Your task to perform on an android device: change the clock display to analog Image 0: 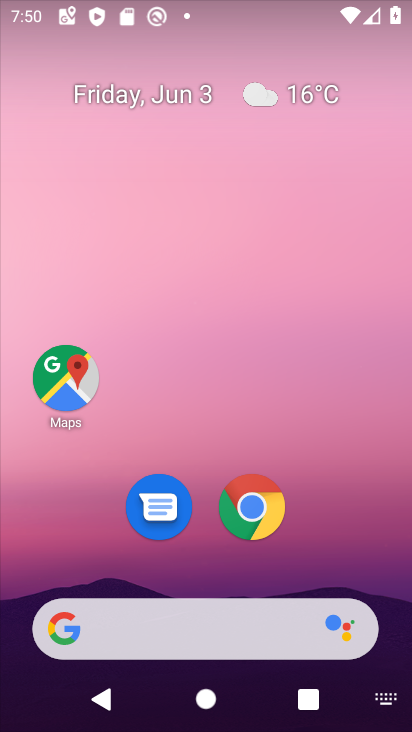
Step 0: drag from (309, 471) to (177, 4)
Your task to perform on an android device: change the clock display to analog Image 1: 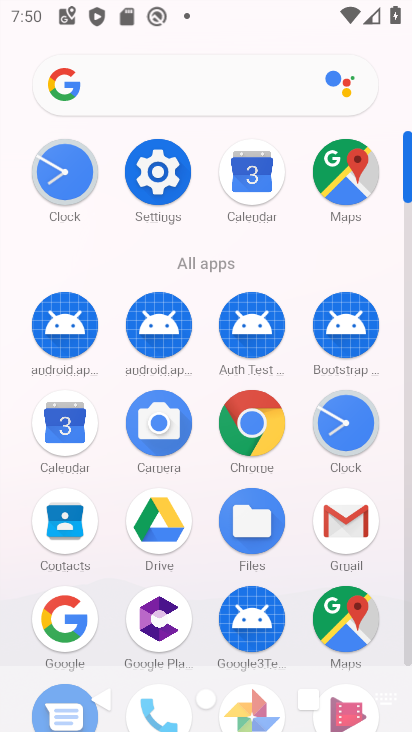
Step 1: click (337, 409)
Your task to perform on an android device: change the clock display to analog Image 2: 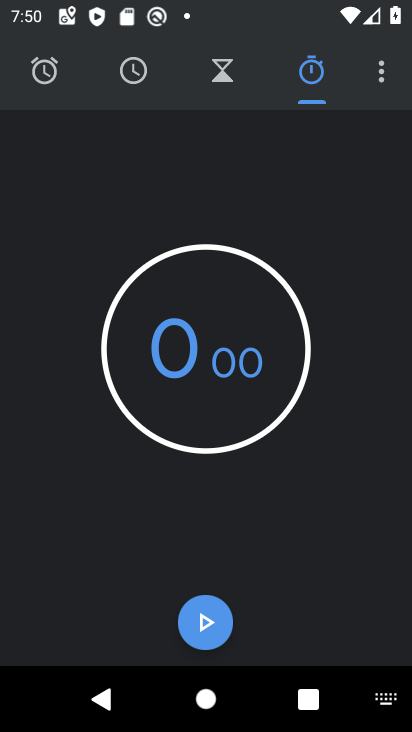
Step 2: click (389, 67)
Your task to perform on an android device: change the clock display to analog Image 3: 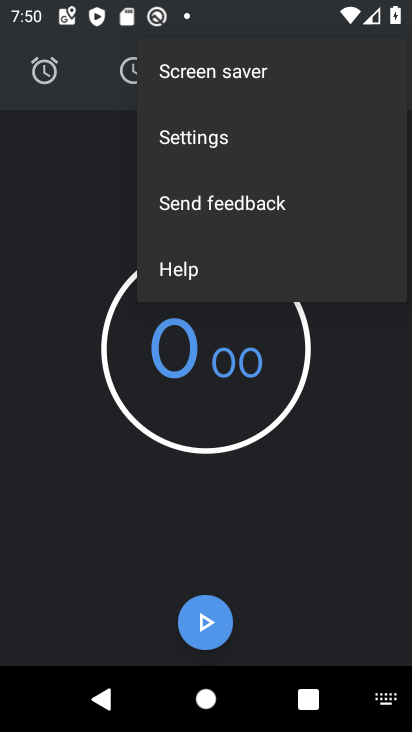
Step 3: click (272, 139)
Your task to perform on an android device: change the clock display to analog Image 4: 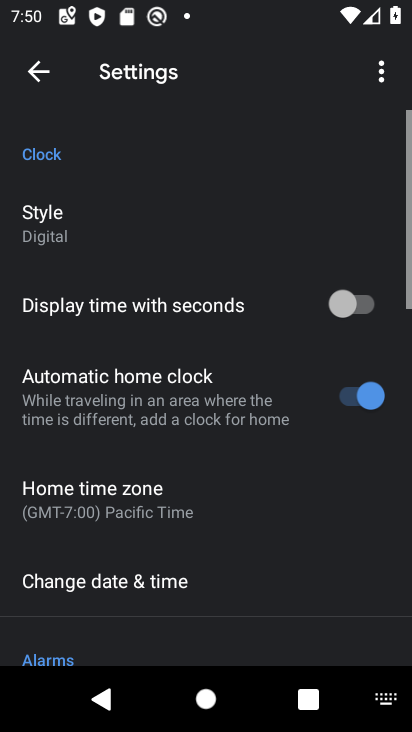
Step 4: click (87, 209)
Your task to perform on an android device: change the clock display to analog Image 5: 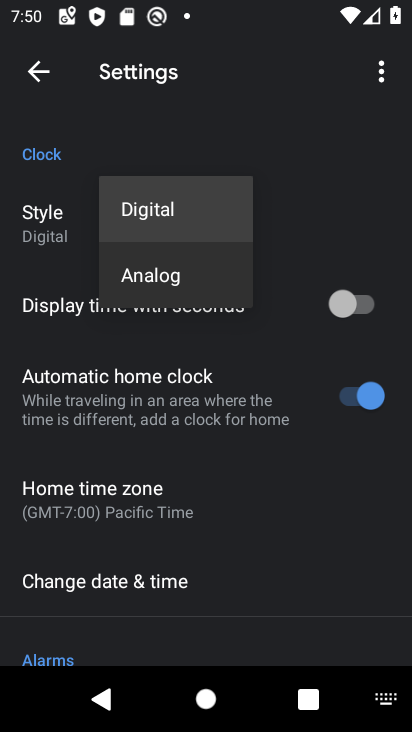
Step 5: click (167, 273)
Your task to perform on an android device: change the clock display to analog Image 6: 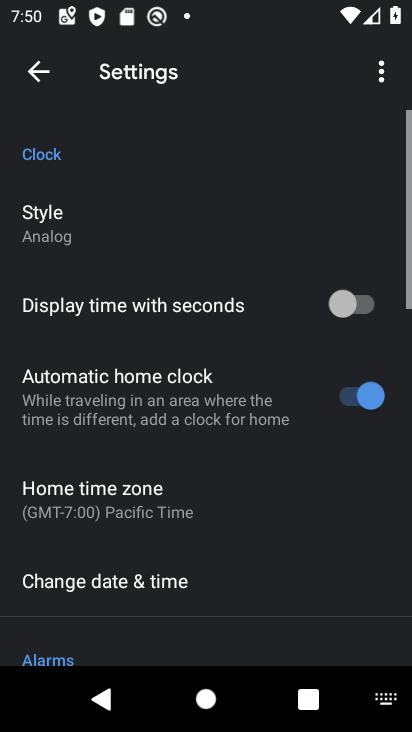
Step 6: task complete